Your task to perform on an android device: move an email to a new category in the gmail app Image 0: 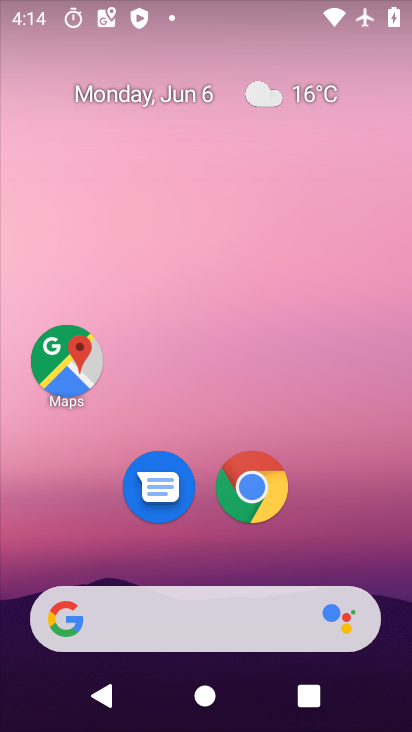
Step 0: drag from (328, 465) to (313, 151)
Your task to perform on an android device: move an email to a new category in the gmail app Image 1: 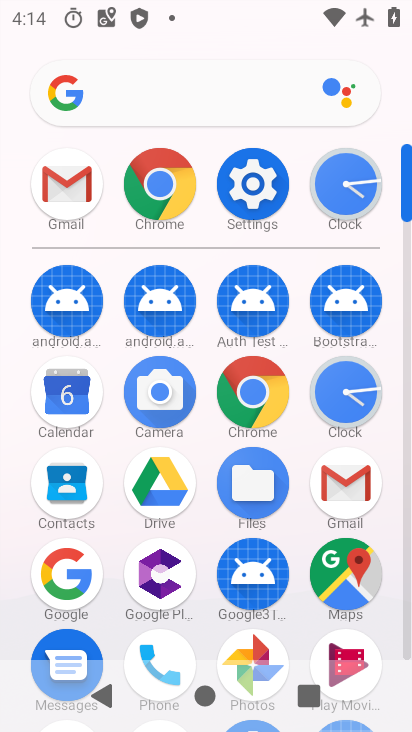
Step 1: click (75, 202)
Your task to perform on an android device: move an email to a new category in the gmail app Image 2: 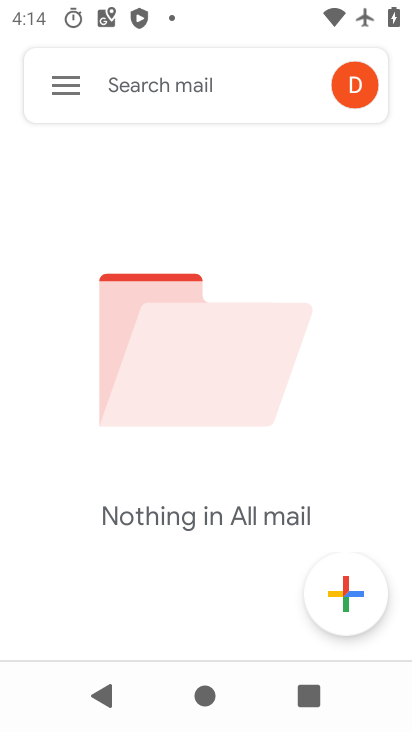
Step 2: click (71, 82)
Your task to perform on an android device: move an email to a new category in the gmail app Image 3: 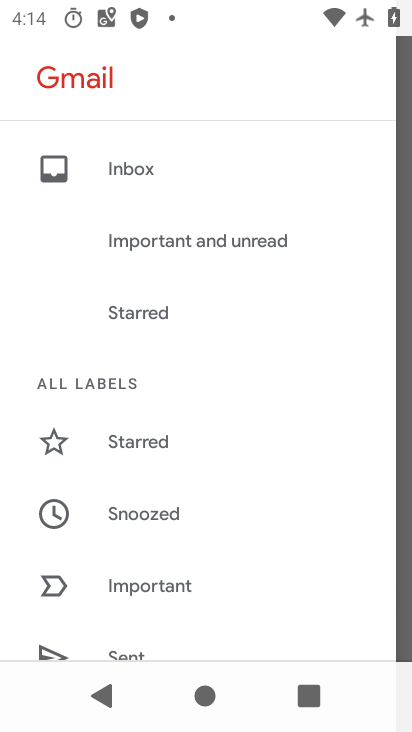
Step 3: drag from (197, 517) to (231, 89)
Your task to perform on an android device: move an email to a new category in the gmail app Image 4: 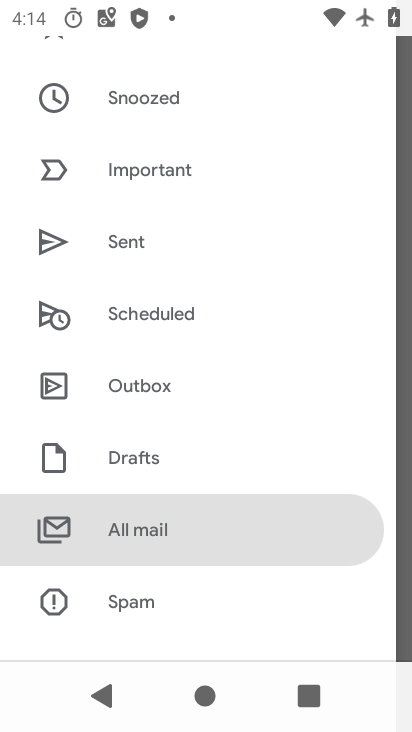
Step 4: click (140, 533)
Your task to perform on an android device: move an email to a new category in the gmail app Image 5: 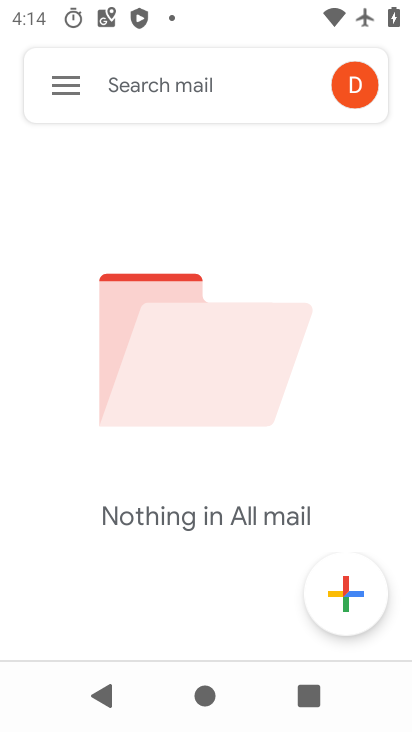
Step 5: task complete